Your task to perform on an android device: toggle translation in the chrome app Image 0: 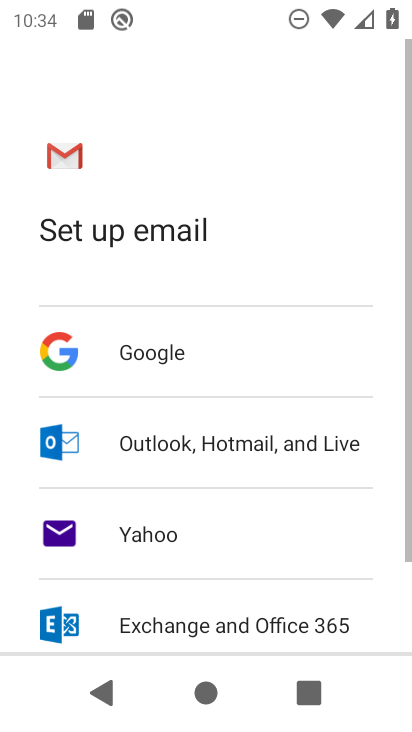
Step 0: press home button
Your task to perform on an android device: toggle translation in the chrome app Image 1: 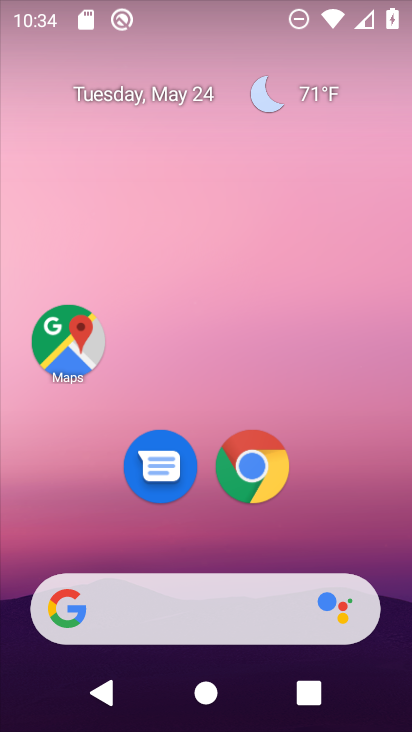
Step 1: click (270, 469)
Your task to perform on an android device: toggle translation in the chrome app Image 2: 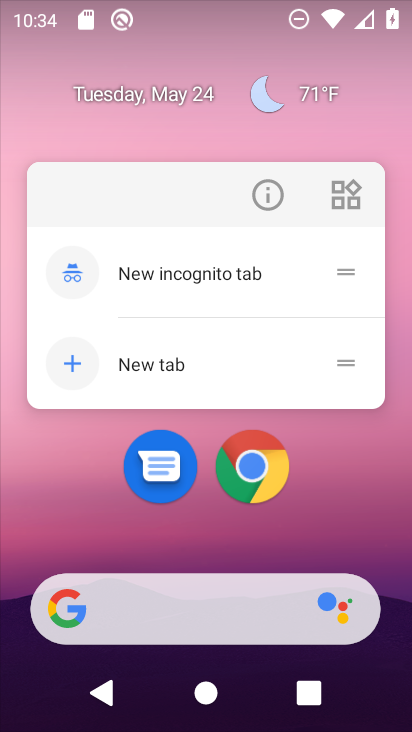
Step 2: click (237, 470)
Your task to perform on an android device: toggle translation in the chrome app Image 3: 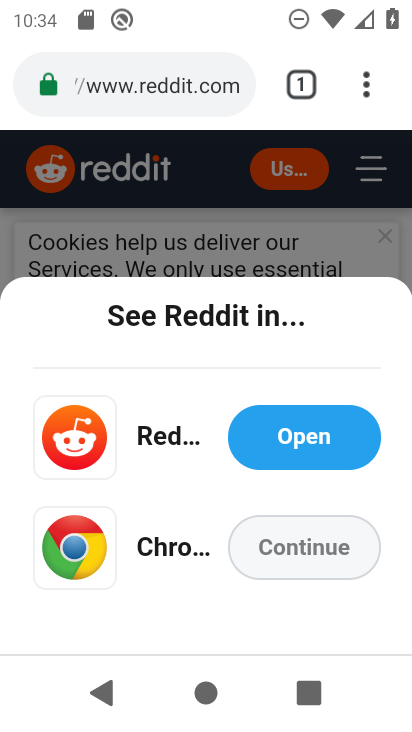
Step 3: click (361, 92)
Your task to perform on an android device: toggle translation in the chrome app Image 4: 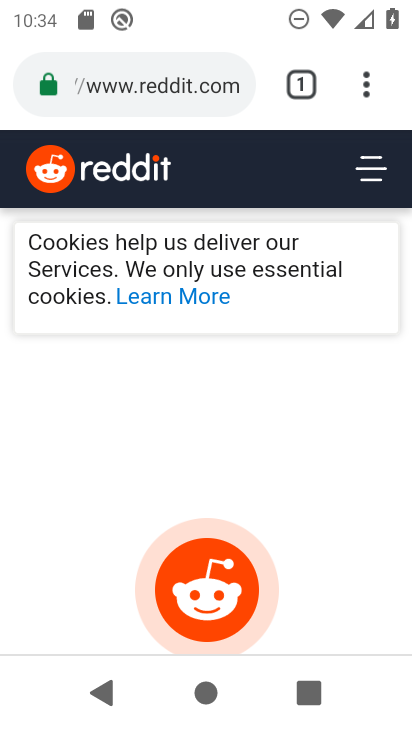
Step 4: click (366, 80)
Your task to perform on an android device: toggle translation in the chrome app Image 5: 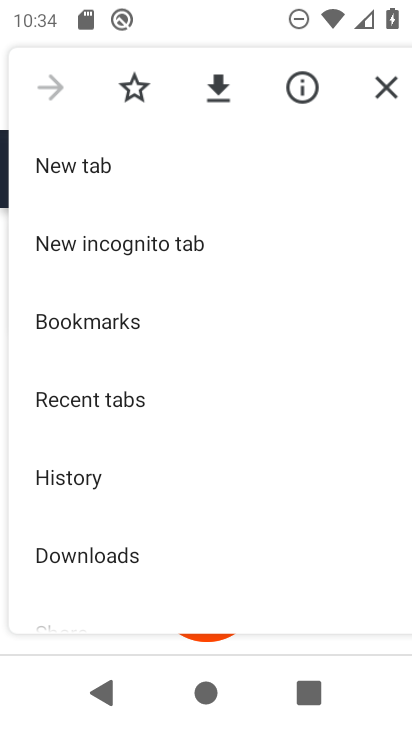
Step 5: drag from (80, 507) to (121, 185)
Your task to perform on an android device: toggle translation in the chrome app Image 6: 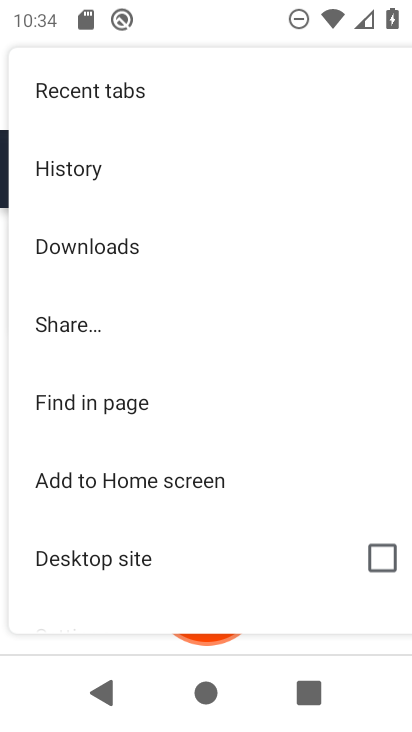
Step 6: drag from (89, 546) to (170, 238)
Your task to perform on an android device: toggle translation in the chrome app Image 7: 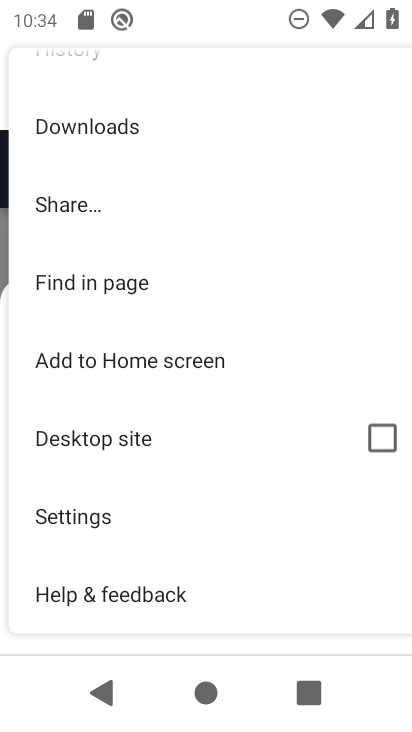
Step 7: drag from (135, 527) to (163, 353)
Your task to perform on an android device: toggle translation in the chrome app Image 8: 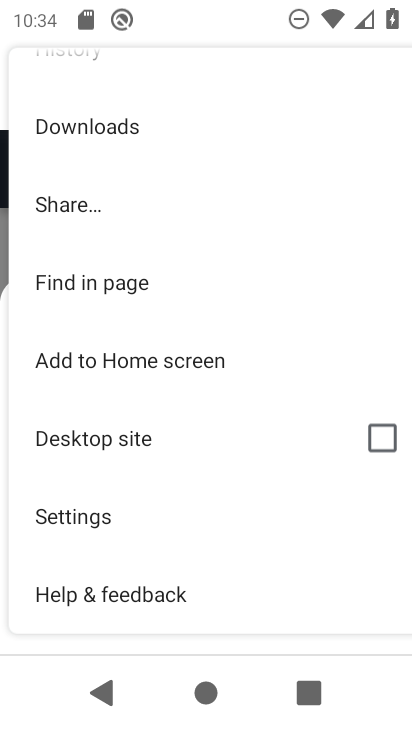
Step 8: click (100, 509)
Your task to perform on an android device: toggle translation in the chrome app Image 9: 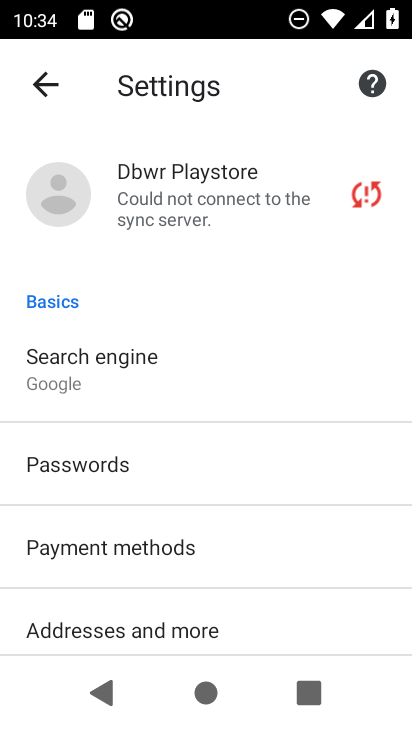
Step 9: drag from (162, 504) to (257, 205)
Your task to perform on an android device: toggle translation in the chrome app Image 10: 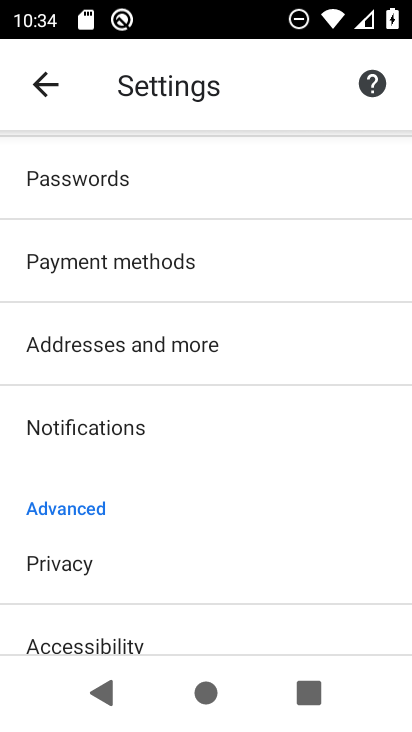
Step 10: drag from (158, 549) to (222, 192)
Your task to perform on an android device: toggle translation in the chrome app Image 11: 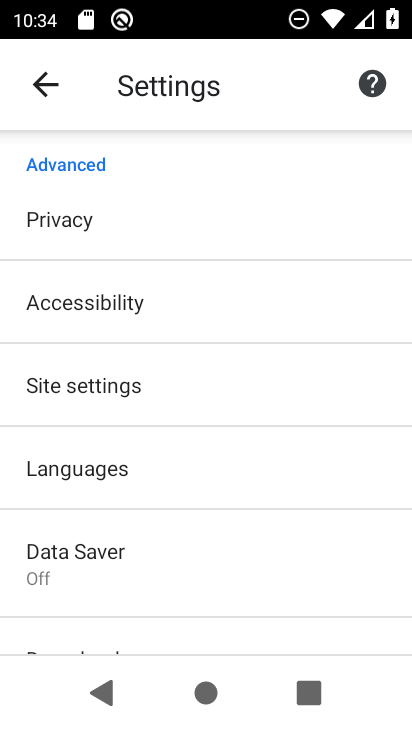
Step 11: click (116, 481)
Your task to perform on an android device: toggle translation in the chrome app Image 12: 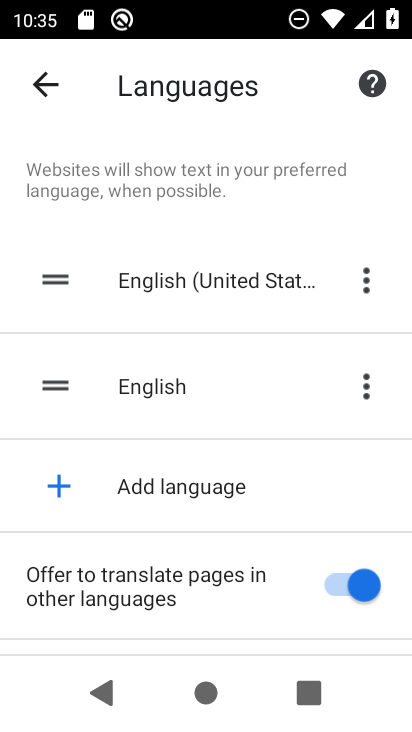
Step 12: click (292, 577)
Your task to perform on an android device: toggle translation in the chrome app Image 13: 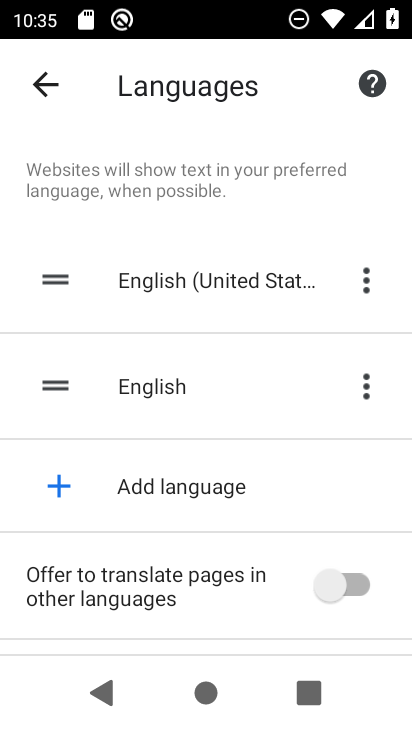
Step 13: task complete